Your task to perform on an android device: toggle notification dots Image 0: 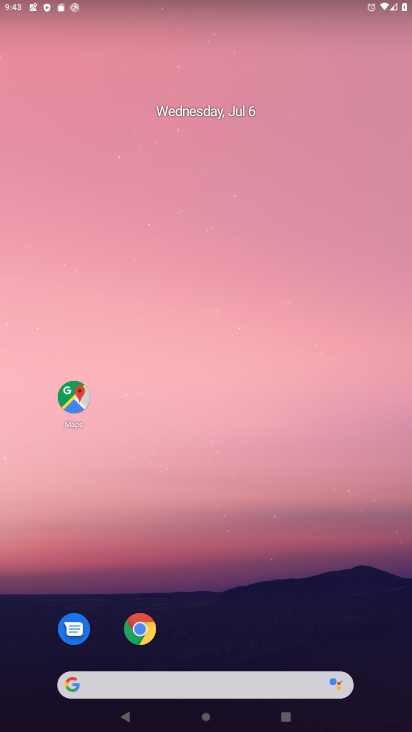
Step 0: drag from (76, 687) to (352, 198)
Your task to perform on an android device: toggle notification dots Image 1: 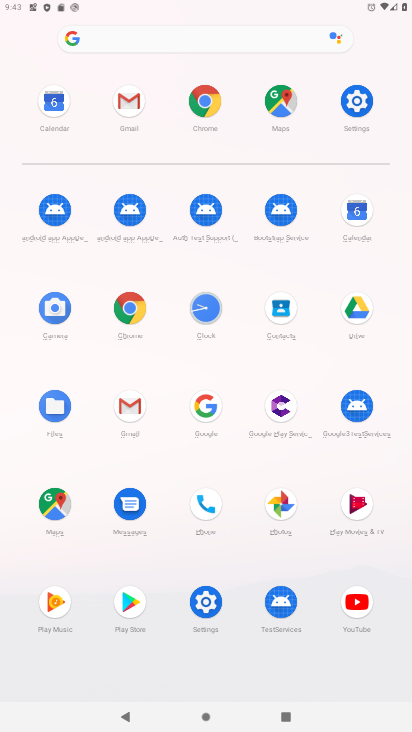
Step 1: click (361, 105)
Your task to perform on an android device: toggle notification dots Image 2: 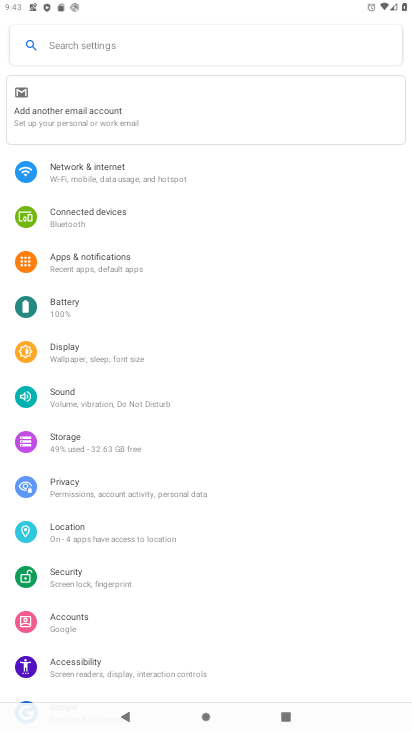
Step 2: click (132, 260)
Your task to perform on an android device: toggle notification dots Image 3: 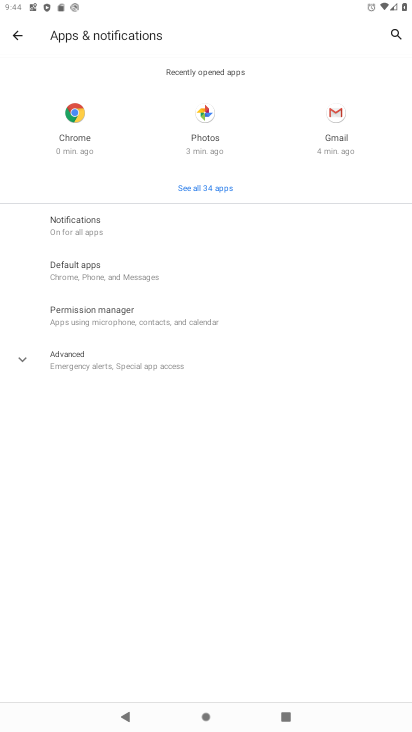
Step 3: click (140, 231)
Your task to perform on an android device: toggle notification dots Image 4: 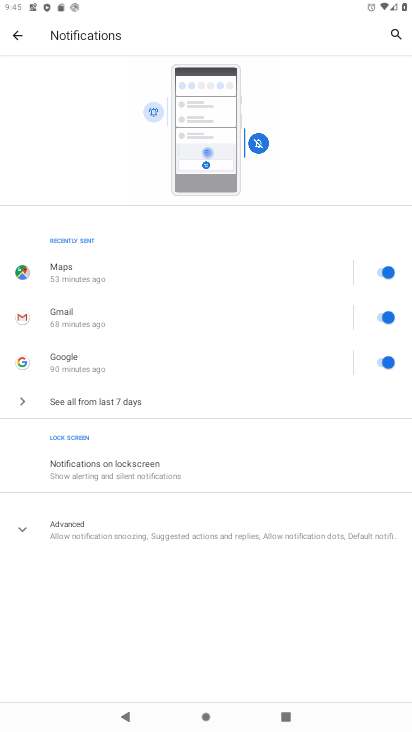
Step 4: click (116, 526)
Your task to perform on an android device: toggle notification dots Image 5: 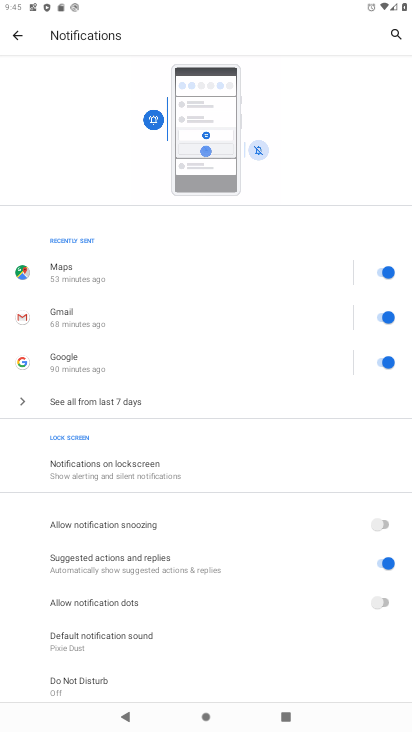
Step 5: click (378, 600)
Your task to perform on an android device: toggle notification dots Image 6: 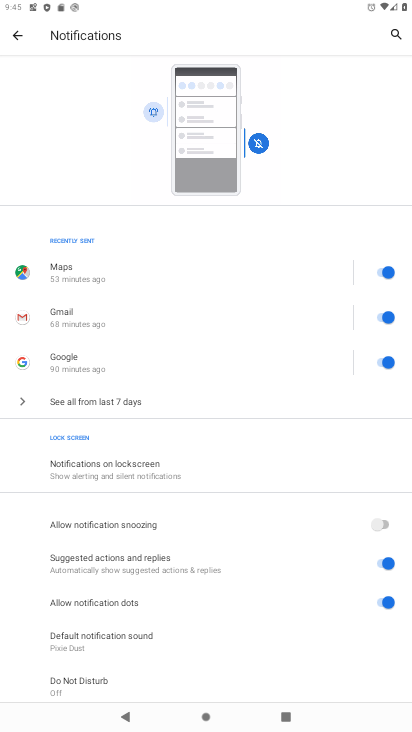
Step 6: task complete